Your task to perform on an android device: all mails in gmail Image 0: 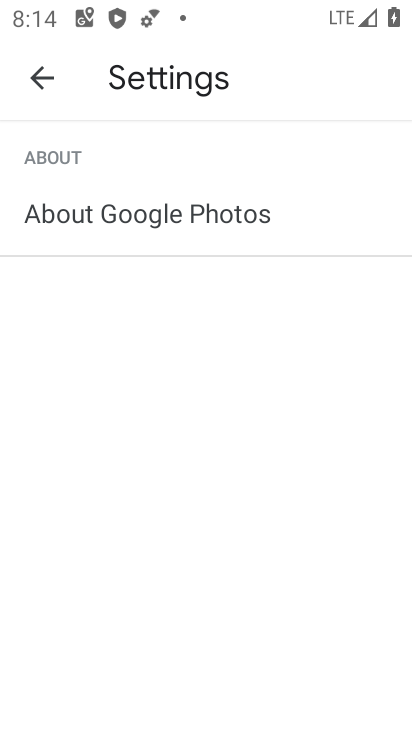
Step 0: press back button
Your task to perform on an android device: all mails in gmail Image 1: 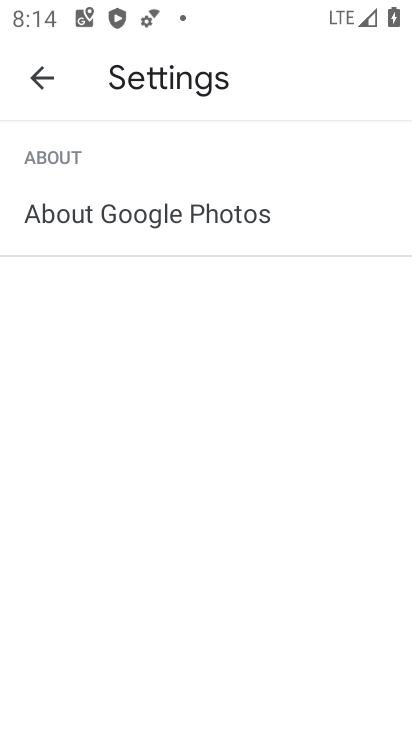
Step 1: press back button
Your task to perform on an android device: all mails in gmail Image 2: 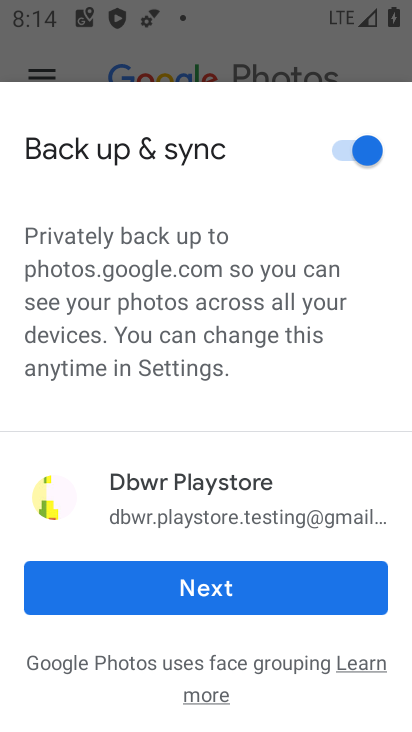
Step 2: press home button
Your task to perform on an android device: all mails in gmail Image 3: 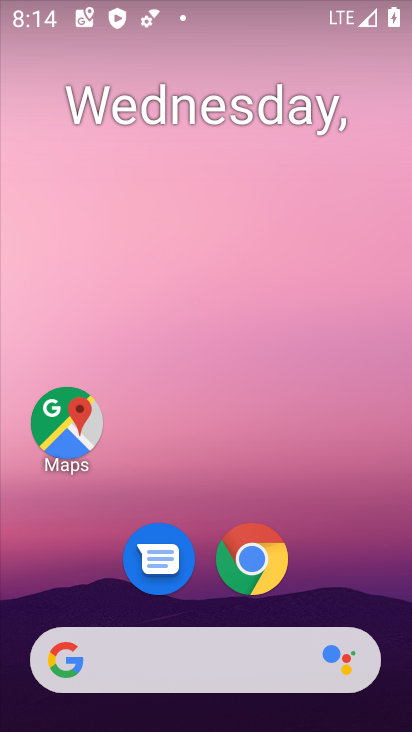
Step 3: drag from (194, 602) to (268, 83)
Your task to perform on an android device: all mails in gmail Image 4: 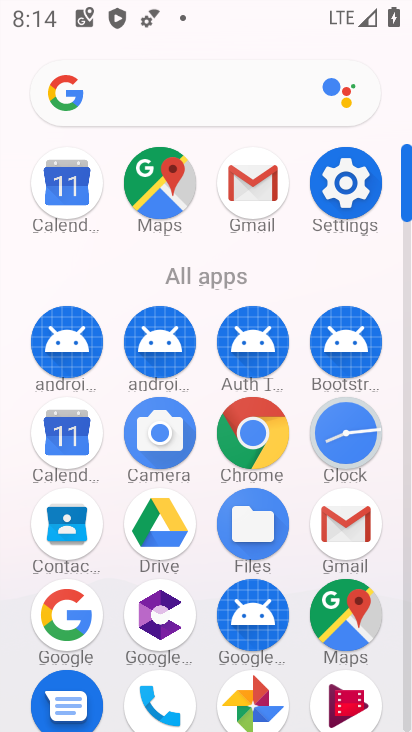
Step 4: click (258, 182)
Your task to perform on an android device: all mails in gmail Image 5: 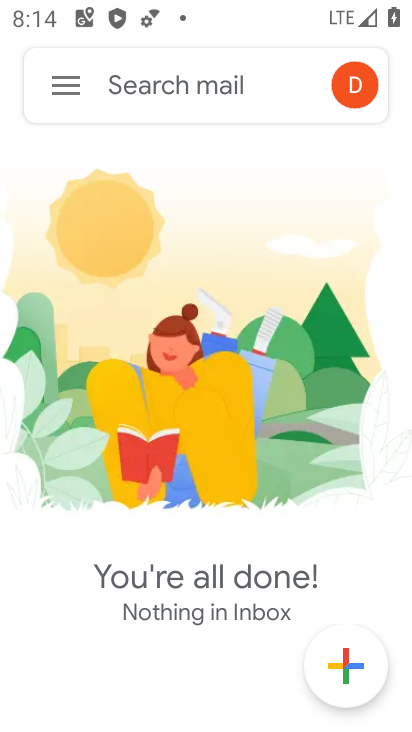
Step 5: click (66, 82)
Your task to perform on an android device: all mails in gmail Image 6: 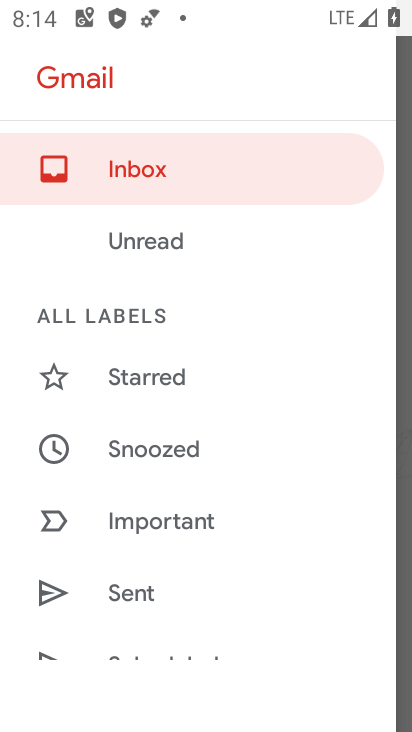
Step 6: drag from (159, 608) to (254, 203)
Your task to perform on an android device: all mails in gmail Image 7: 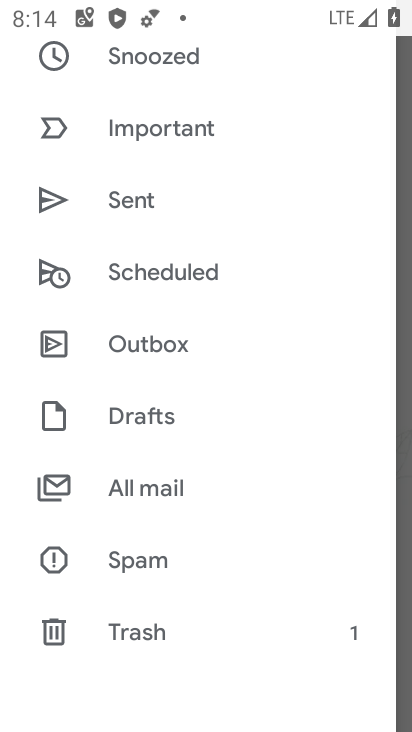
Step 7: click (162, 478)
Your task to perform on an android device: all mails in gmail Image 8: 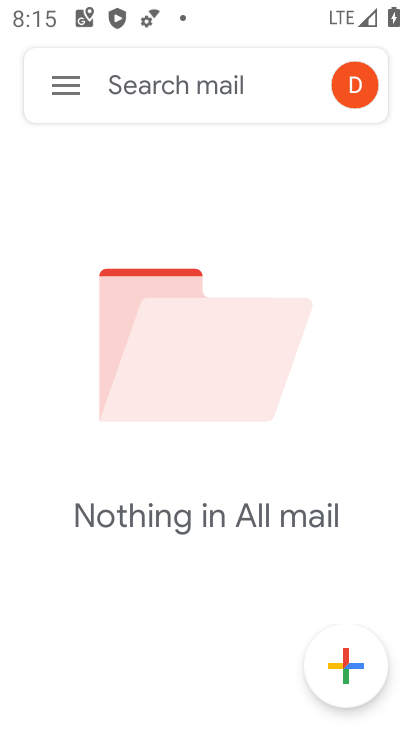
Step 8: task complete